Your task to perform on an android device: Add "logitech g502" to the cart on costco Image 0: 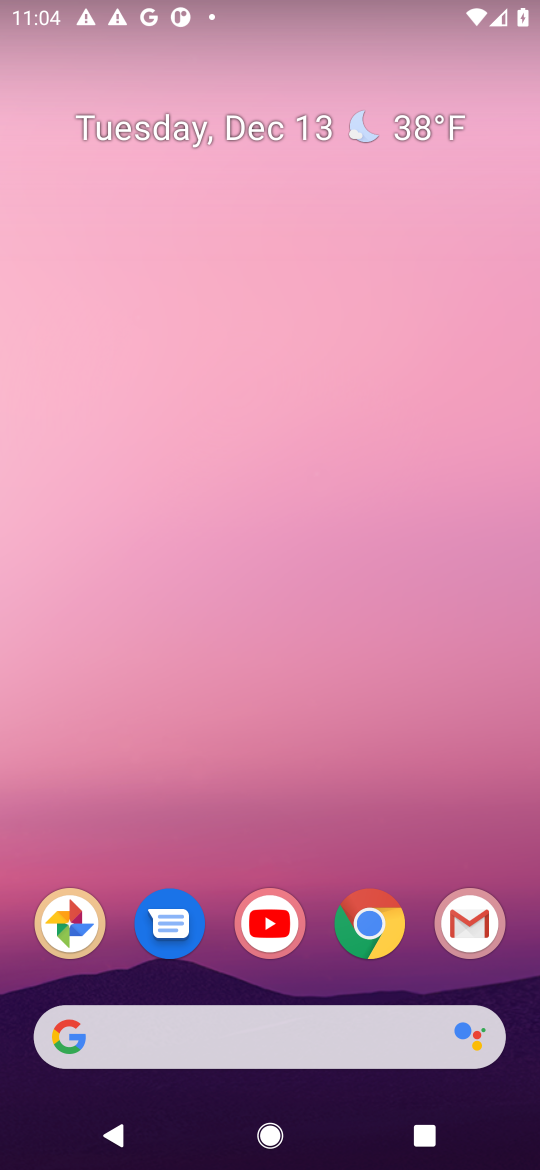
Step 0: click (359, 1040)
Your task to perform on an android device: Add "logitech g502" to the cart on costco Image 1: 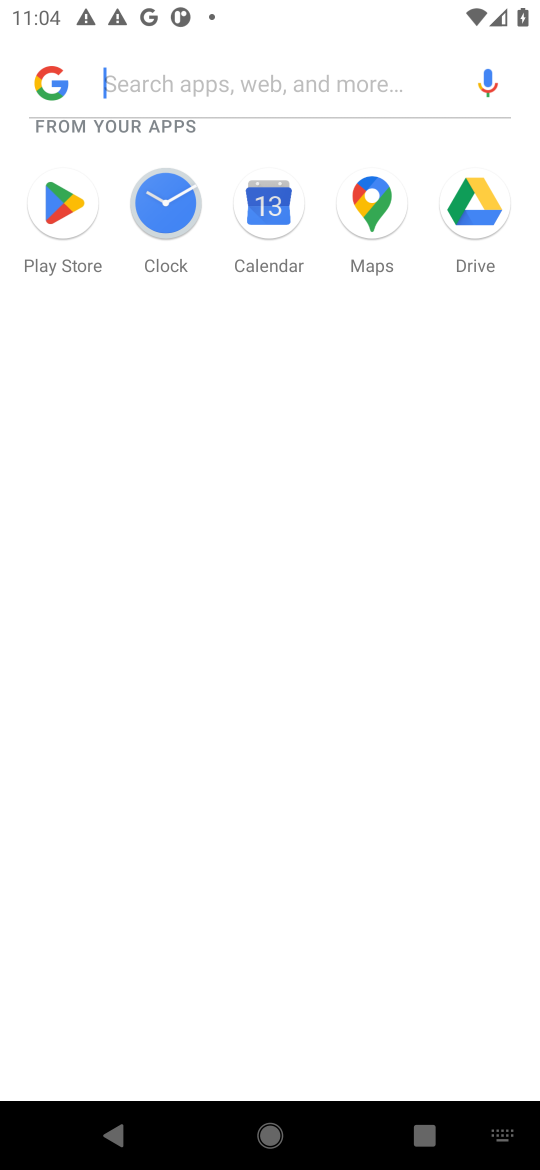
Step 1: press home button
Your task to perform on an android device: Add "logitech g502" to the cart on costco Image 2: 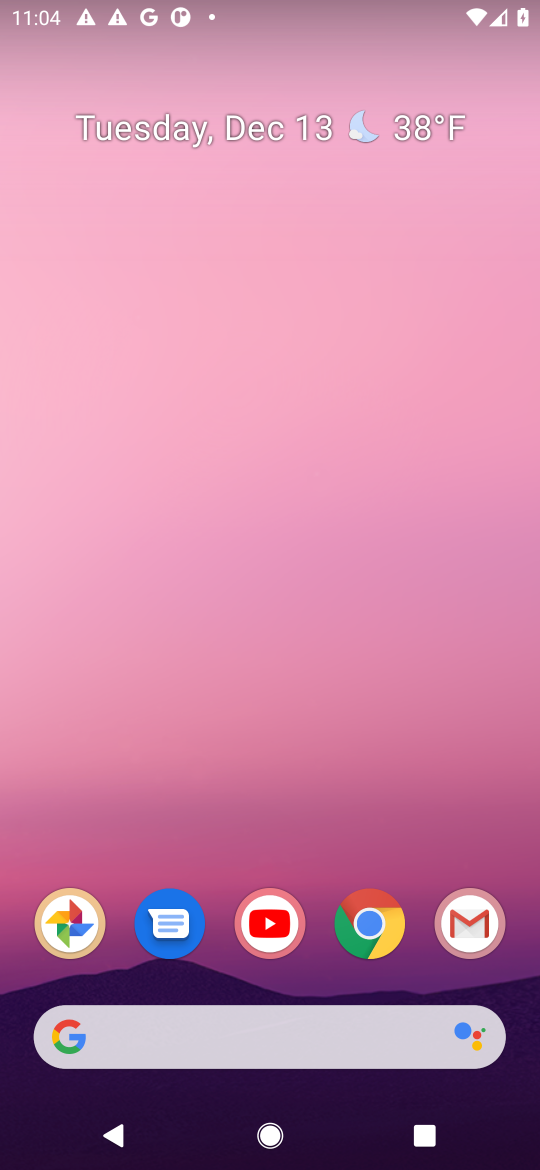
Step 2: click (382, 919)
Your task to perform on an android device: Add "logitech g502" to the cart on costco Image 3: 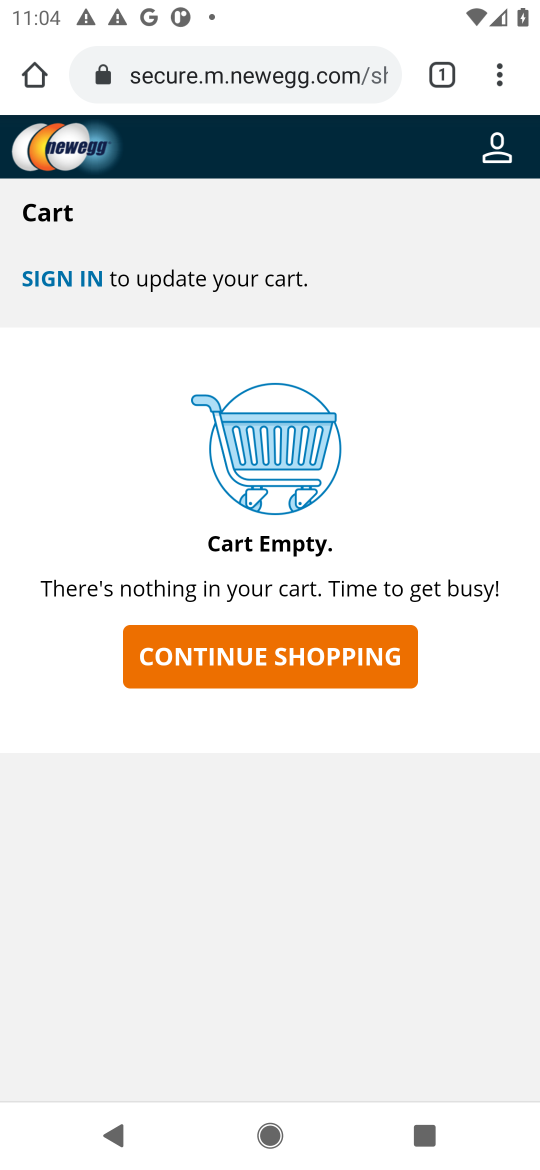
Step 3: click (264, 93)
Your task to perform on an android device: Add "logitech g502" to the cart on costco Image 4: 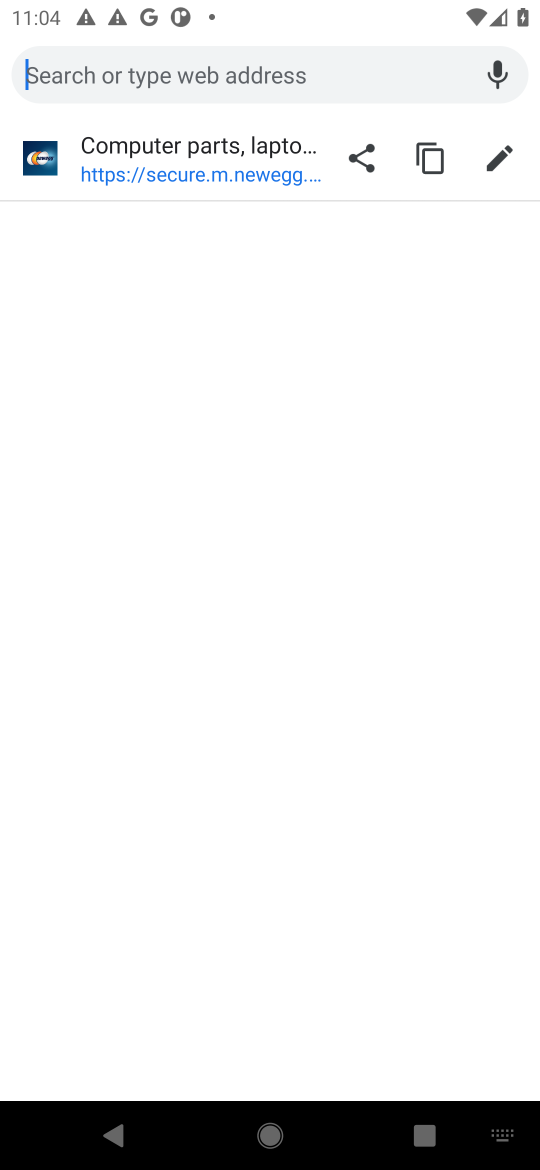
Step 4: type "costco"
Your task to perform on an android device: Add "logitech g502" to the cart on costco Image 5: 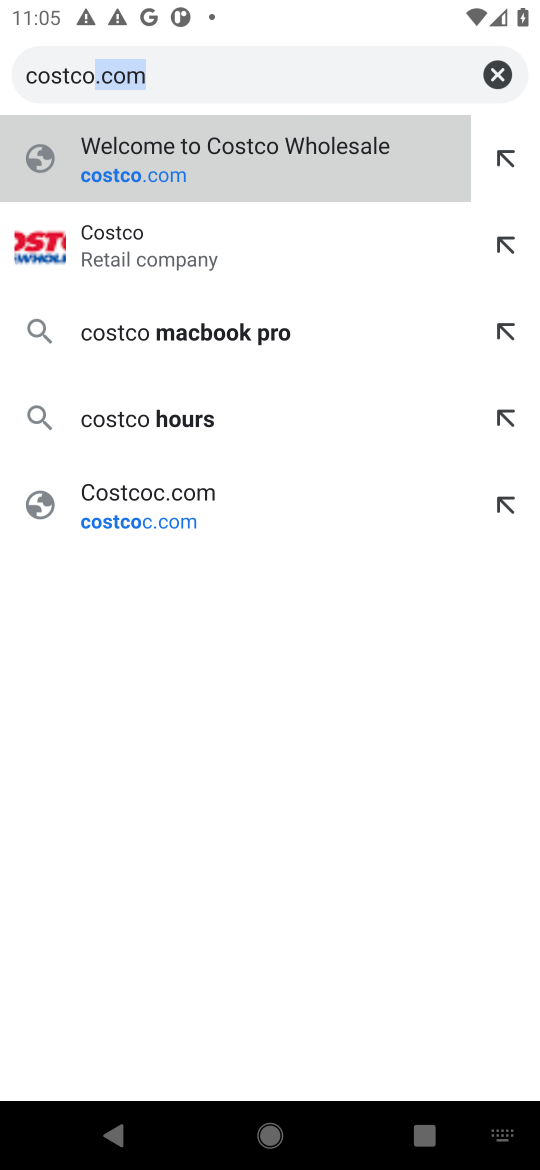
Step 5: click (194, 178)
Your task to perform on an android device: Add "logitech g502" to the cart on costco Image 6: 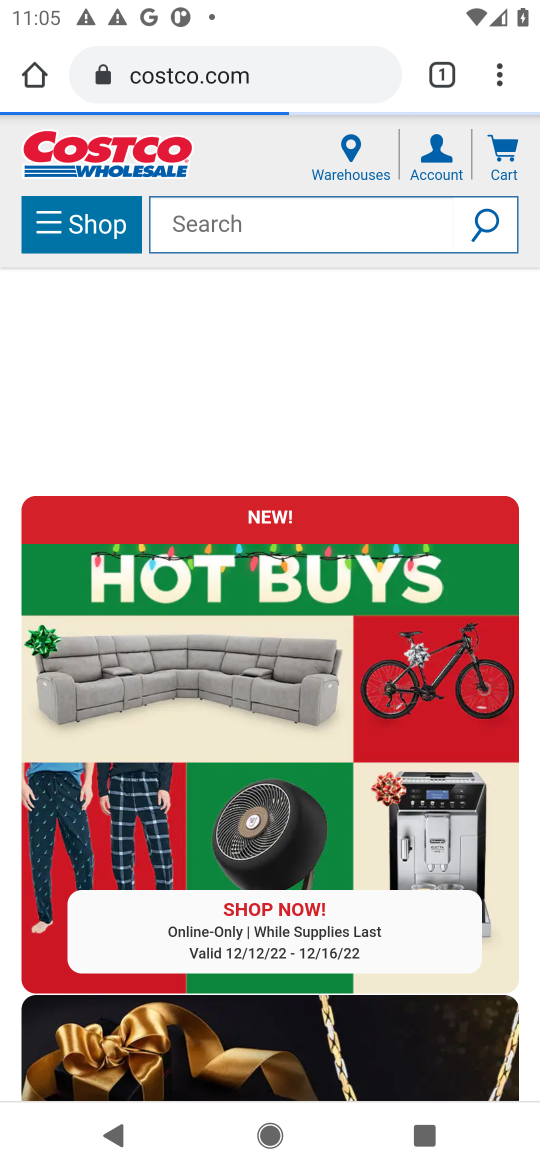
Step 6: click (217, 218)
Your task to perform on an android device: Add "logitech g502" to the cart on costco Image 7: 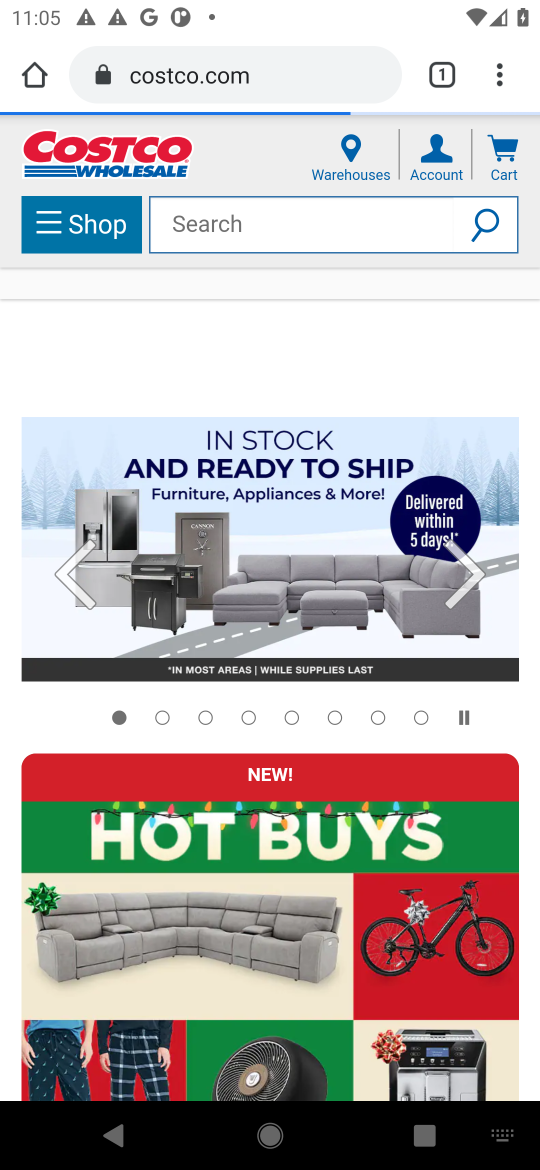
Step 7: click (217, 218)
Your task to perform on an android device: Add "logitech g502" to the cart on costco Image 8: 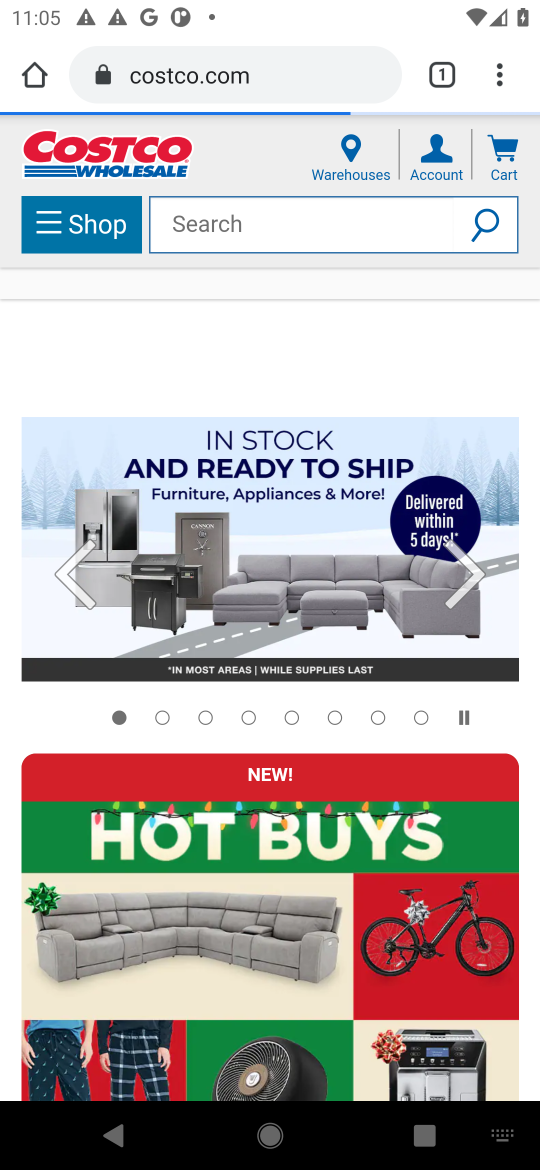
Step 8: click (411, 232)
Your task to perform on an android device: Add "logitech g502" to the cart on costco Image 9: 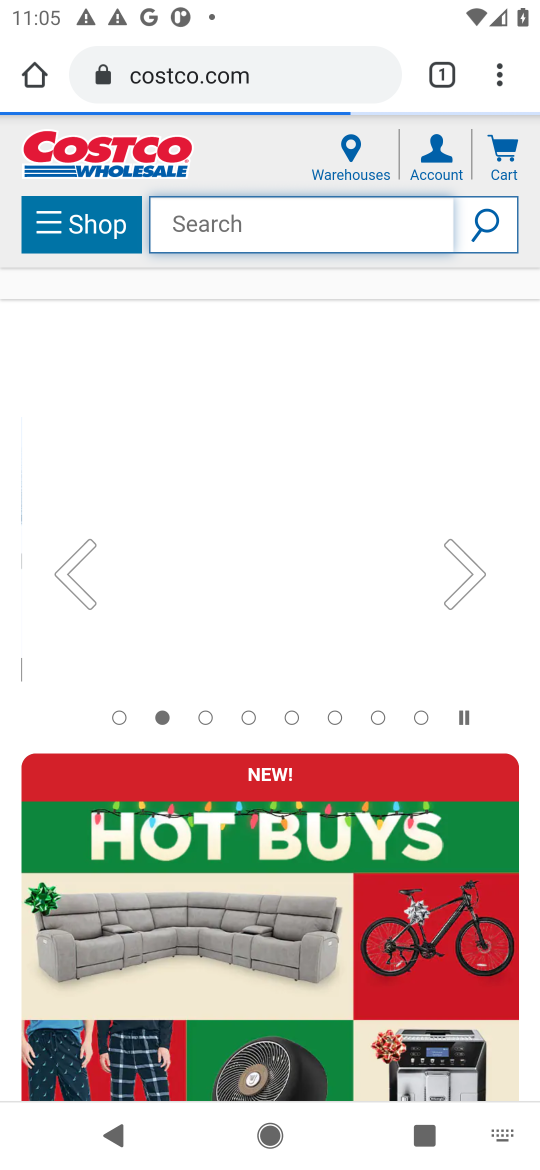
Step 9: type "logitech g502"
Your task to perform on an android device: Add "logitech g502" to the cart on costco Image 10: 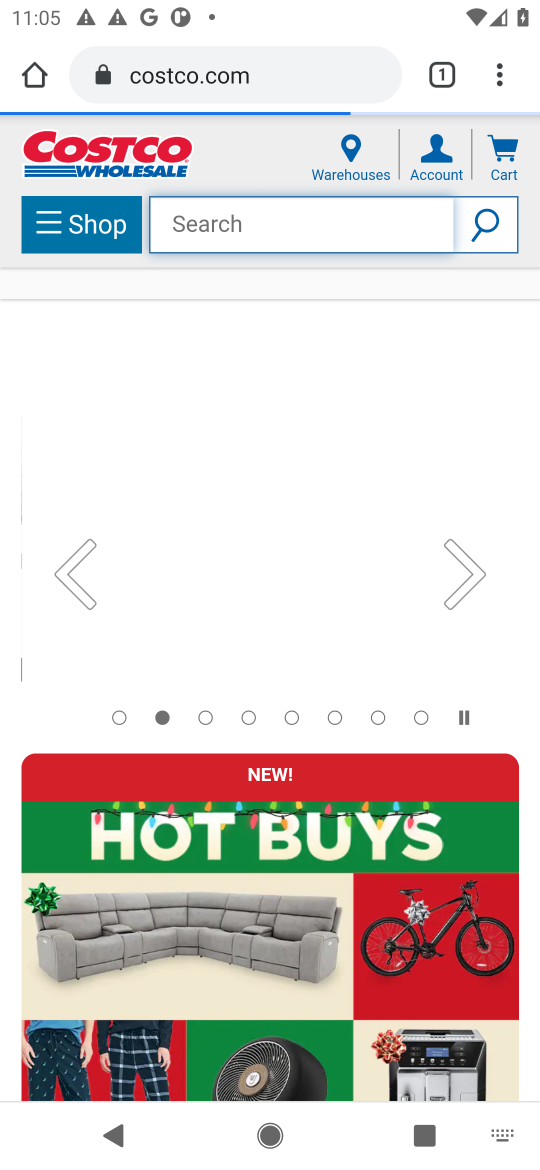
Step 10: click (346, 221)
Your task to perform on an android device: Add "logitech g502" to the cart on costco Image 11: 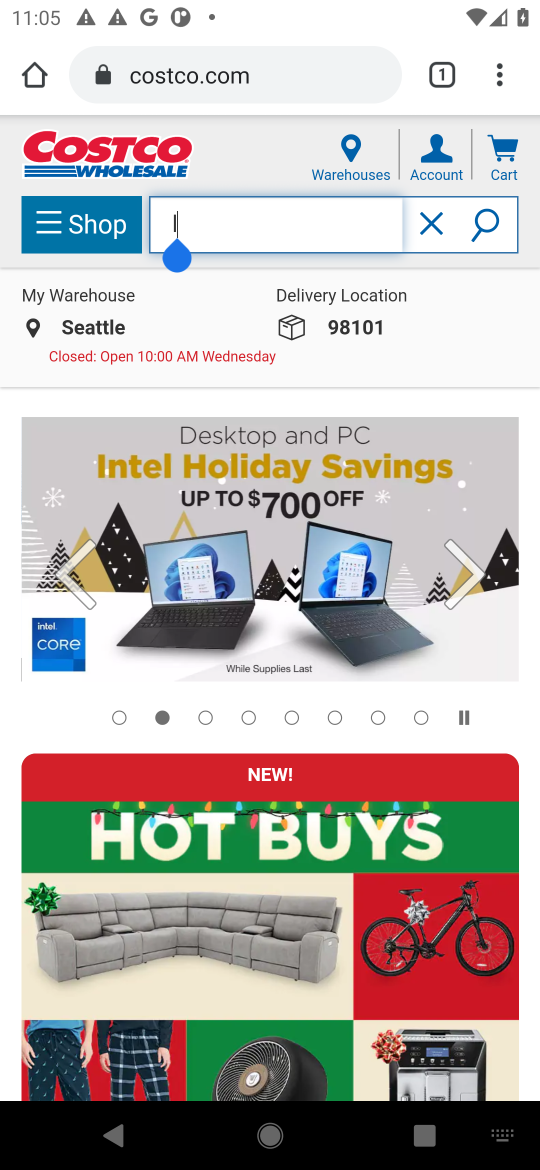
Step 11: click (438, 244)
Your task to perform on an android device: Add "logitech g502" to the cart on costco Image 12: 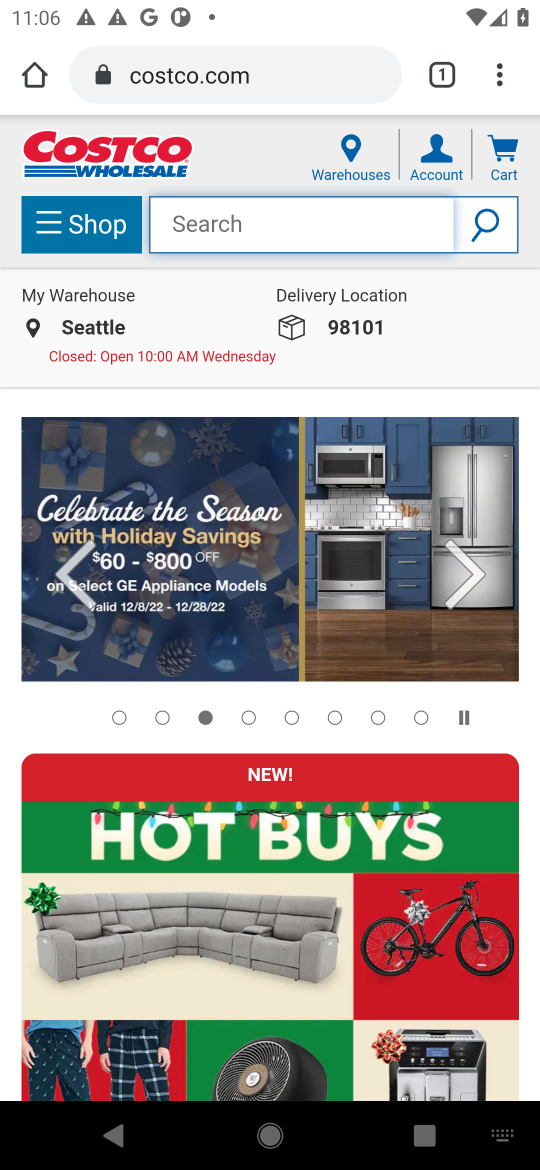
Step 12: type "logitech g502"
Your task to perform on an android device: Add "logitech g502" to the cart on costco Image 13: 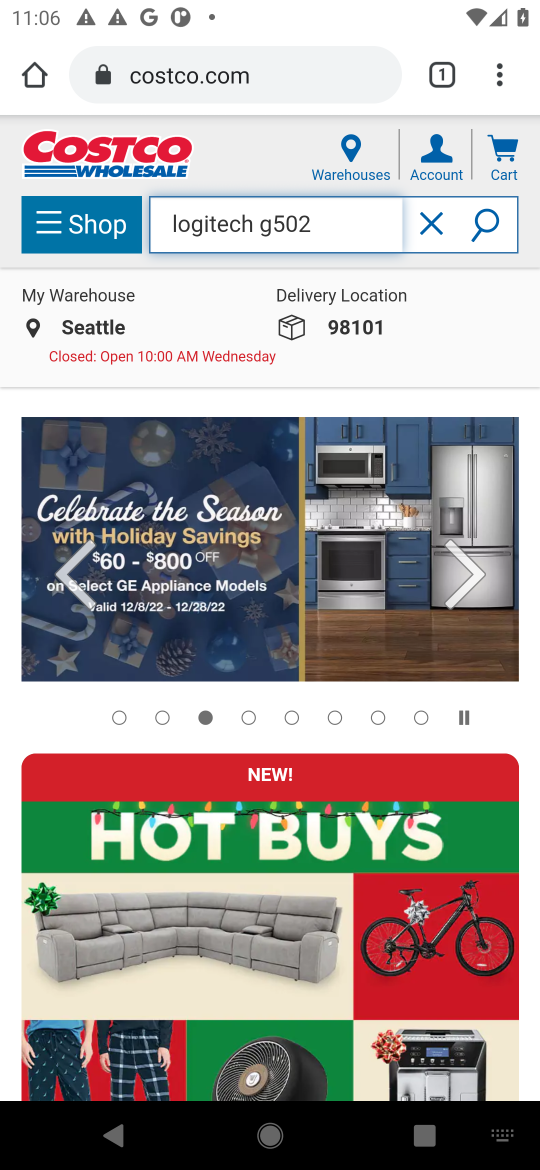
Step 13: click (472, 233)
Your task to perform on an android device: Add "logitech g502" to the cart on costco Image 14: 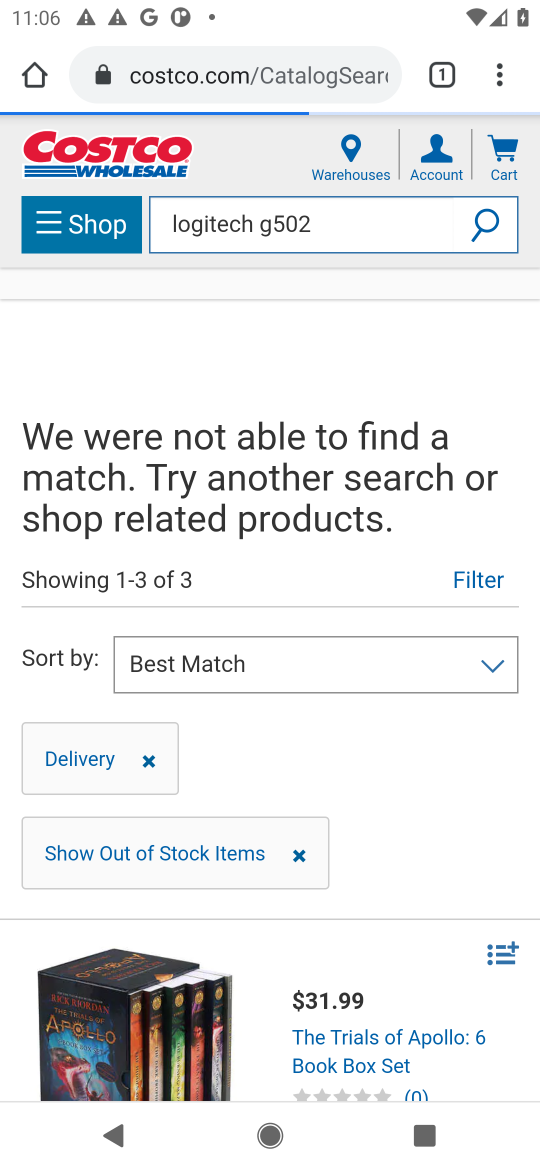
Step 14: task complete